Your task to perform on an android device: Open Wikipedia Image 0: 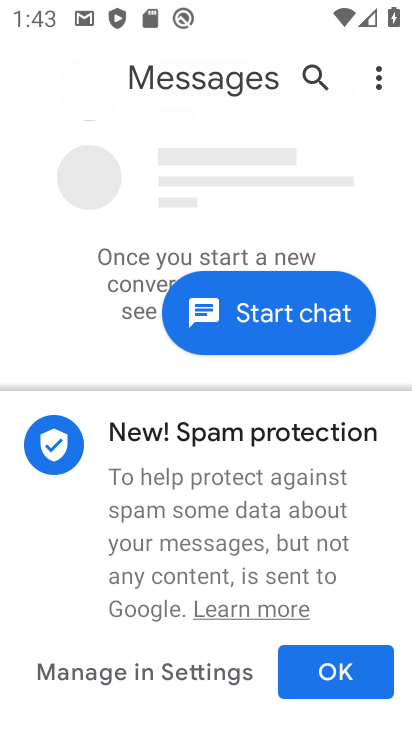
Step 0: press home button
Your task to perform on an android device: Open Wikipedia Image 1: 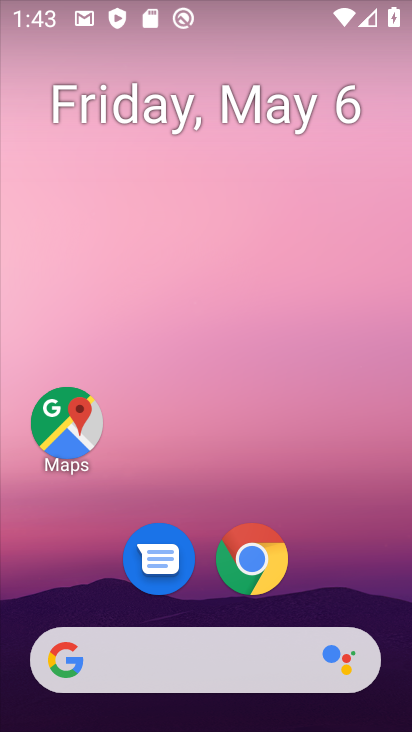
Step 1: drag from (287, 641) to (322, 36)
Your task to perform on an android device: Open Wikipedia Image 2: 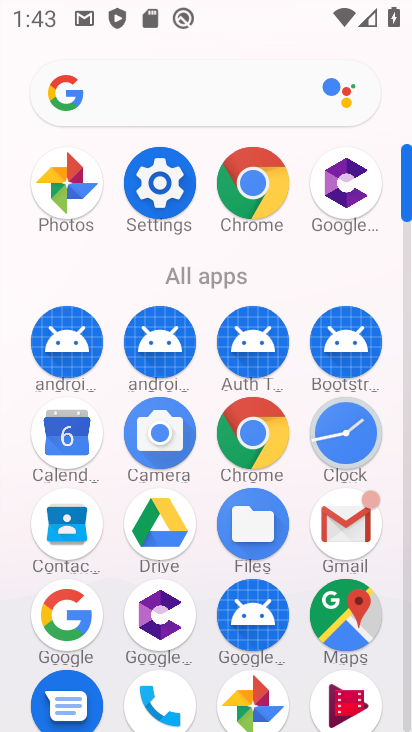
Step 2: click (266, 432)
Your task to perform on an android device: Open Wikipedia Image 3: 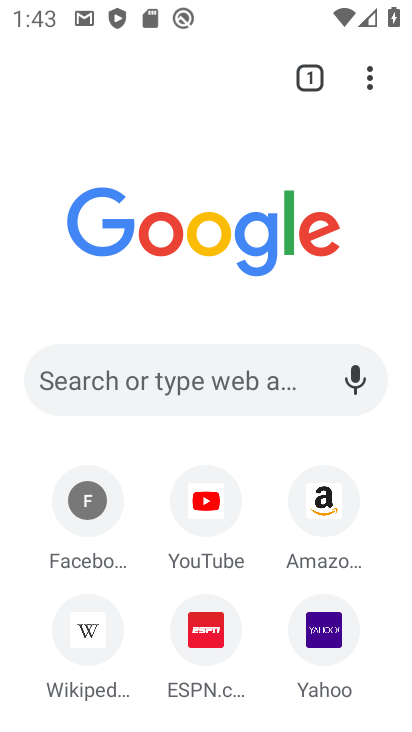
Step 3: click (81, 634)
Your task to perform on an android device: Open Wikipedia Image 4: 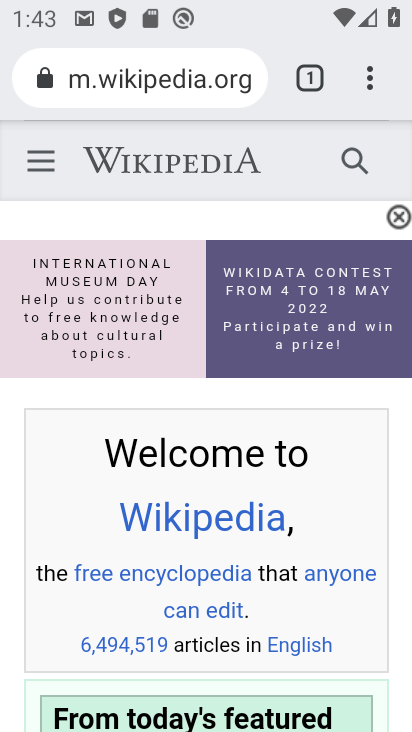
Step 4: task complete